Your task to perform on an android device: change the clock display to digital Image 0: 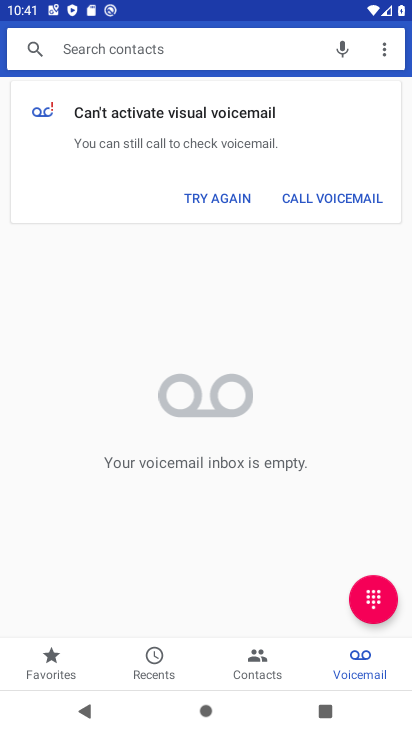
Step 0: press home button
Your task to perform on an android device: change the clock display to digital Image 1: 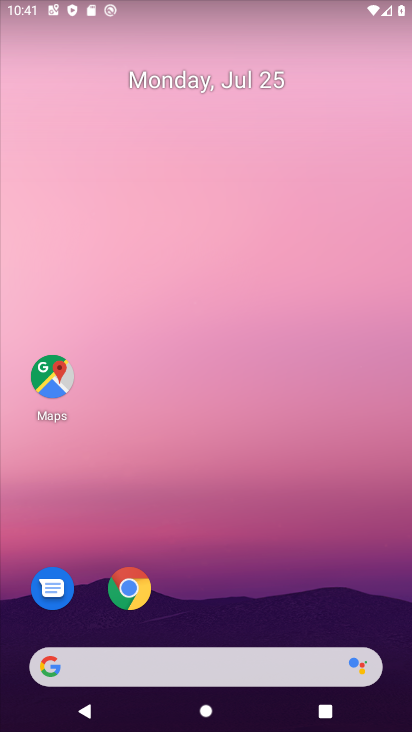
Step 1: drag from (313, 582) to (311, 152)
Your task to perform on an android device: change the clock display to digital Image 2: 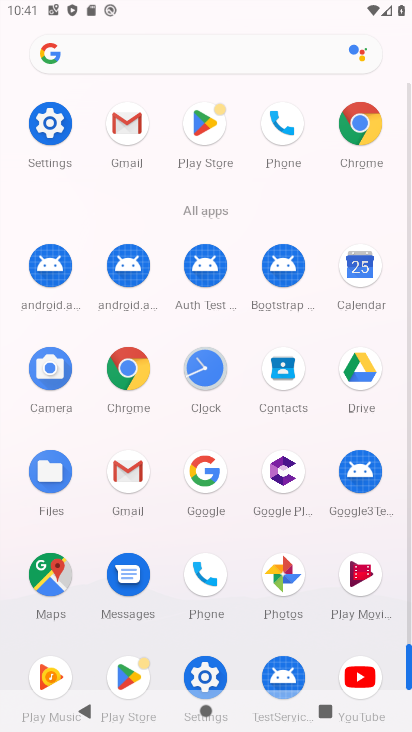
Step 2: click (212, 376)
Your task to perform on an android device: change the clock display to digital Image 3: 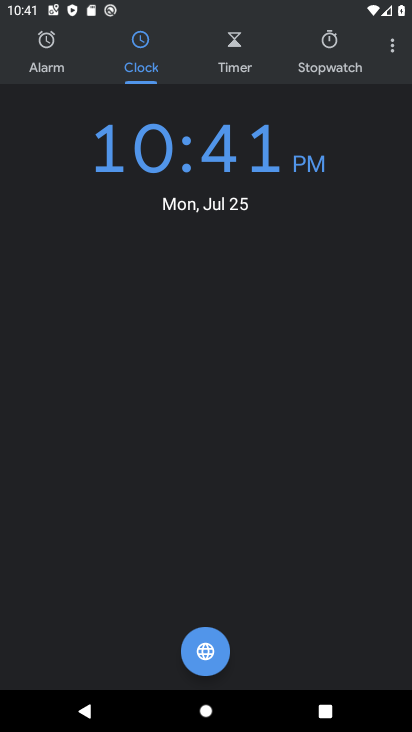
Step 3: click (401, 47)
Your task to perform on an android device: change the clock display to digital Image 4: 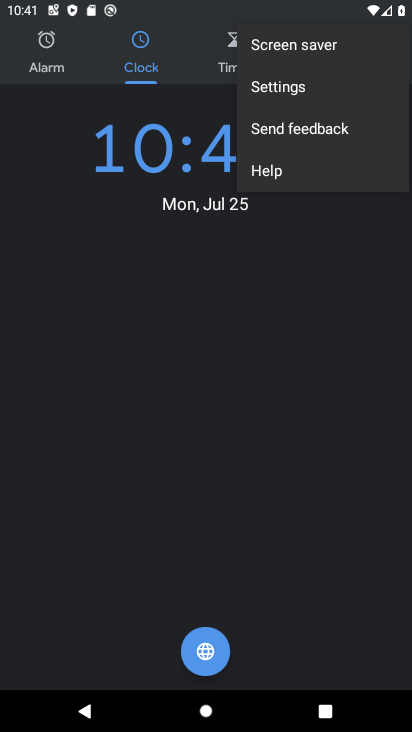
Step 4: click (311, 97)
Your task to perform on an android device: change the clock display to digital Image 5: 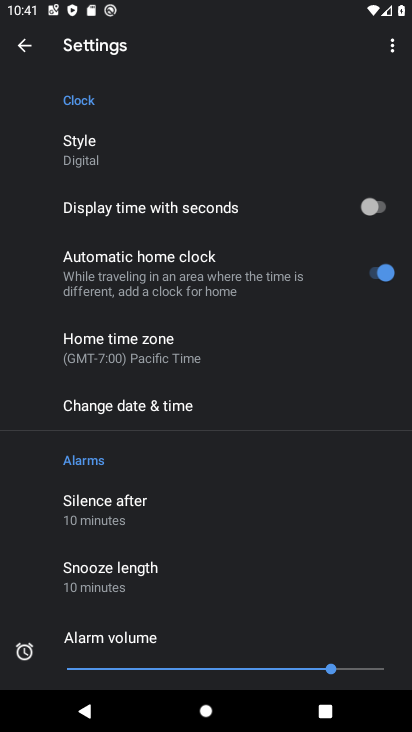
Step 5: task complete